Your task to perform on an android device: Open network settings Image 0: 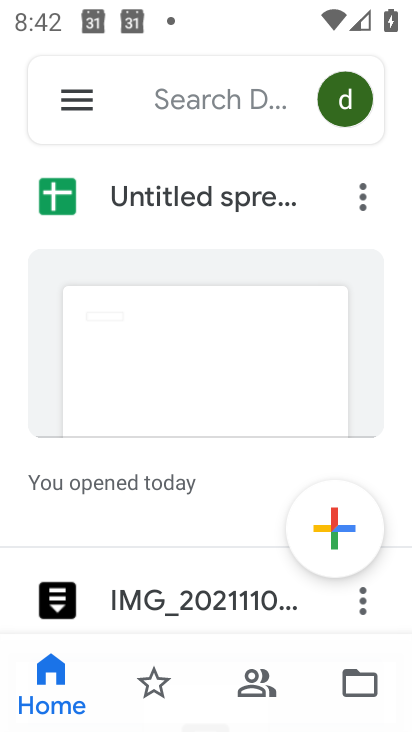
Step 0: press home button
Your task to perform on an android device: Open network settings Image 1: 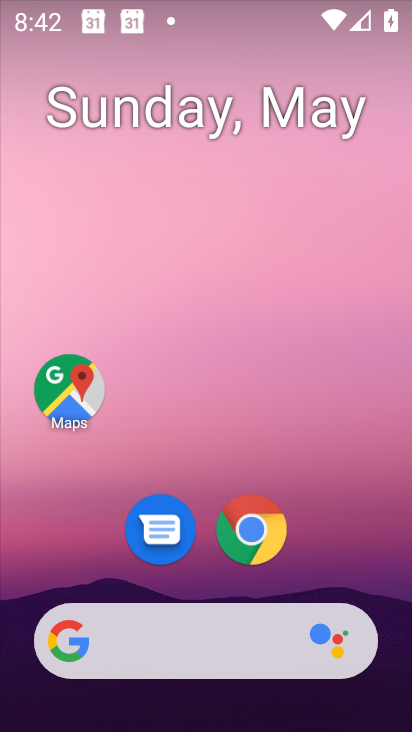
Step 1: drag from (332, 544) to (264, 9)
Your task to perform on an android device: Open network settings Image 2: 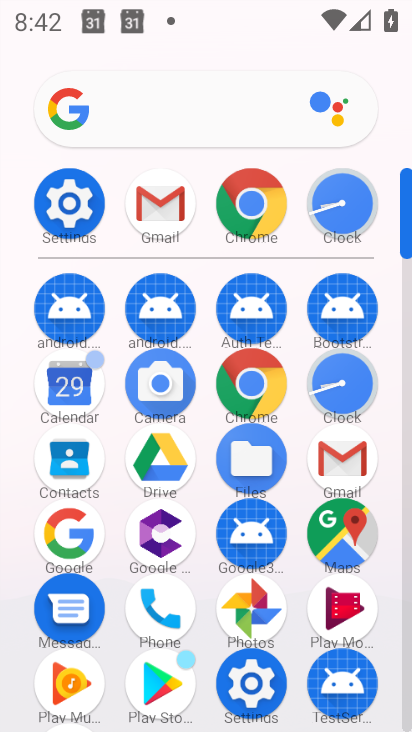
Step 2: click (51, 211)
Your task to perform on an android device: Open network settings Image 3: 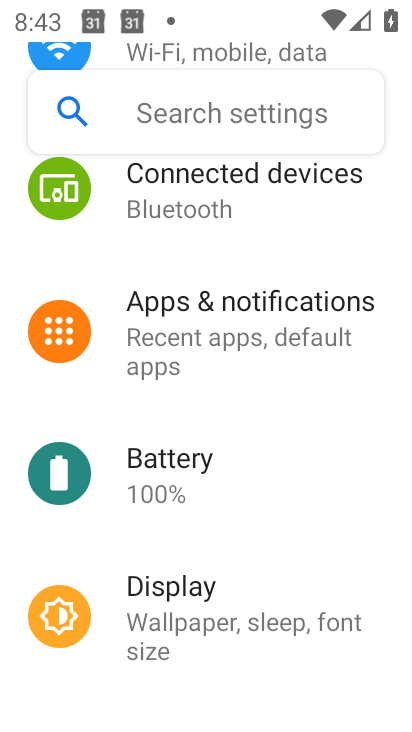
Step 3: click (172, 59)
Your task to perform on an android device: Open network settings Image 4: 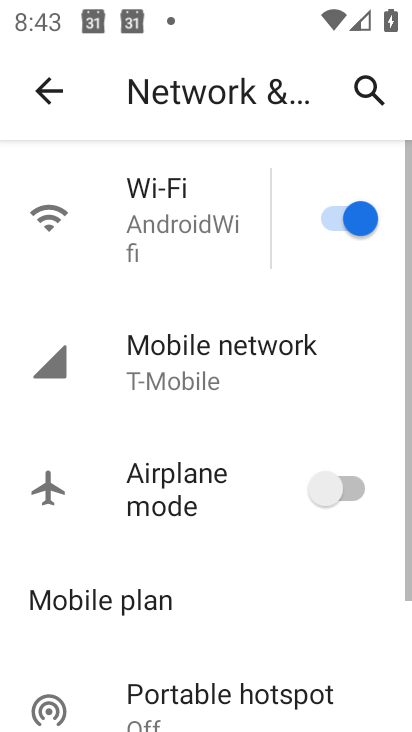
Step 4: task complete